Your task to perform on an android device: open app "Roku - Official Remote Control" (install if not already installed), go to login, and select forgot password Image 0: 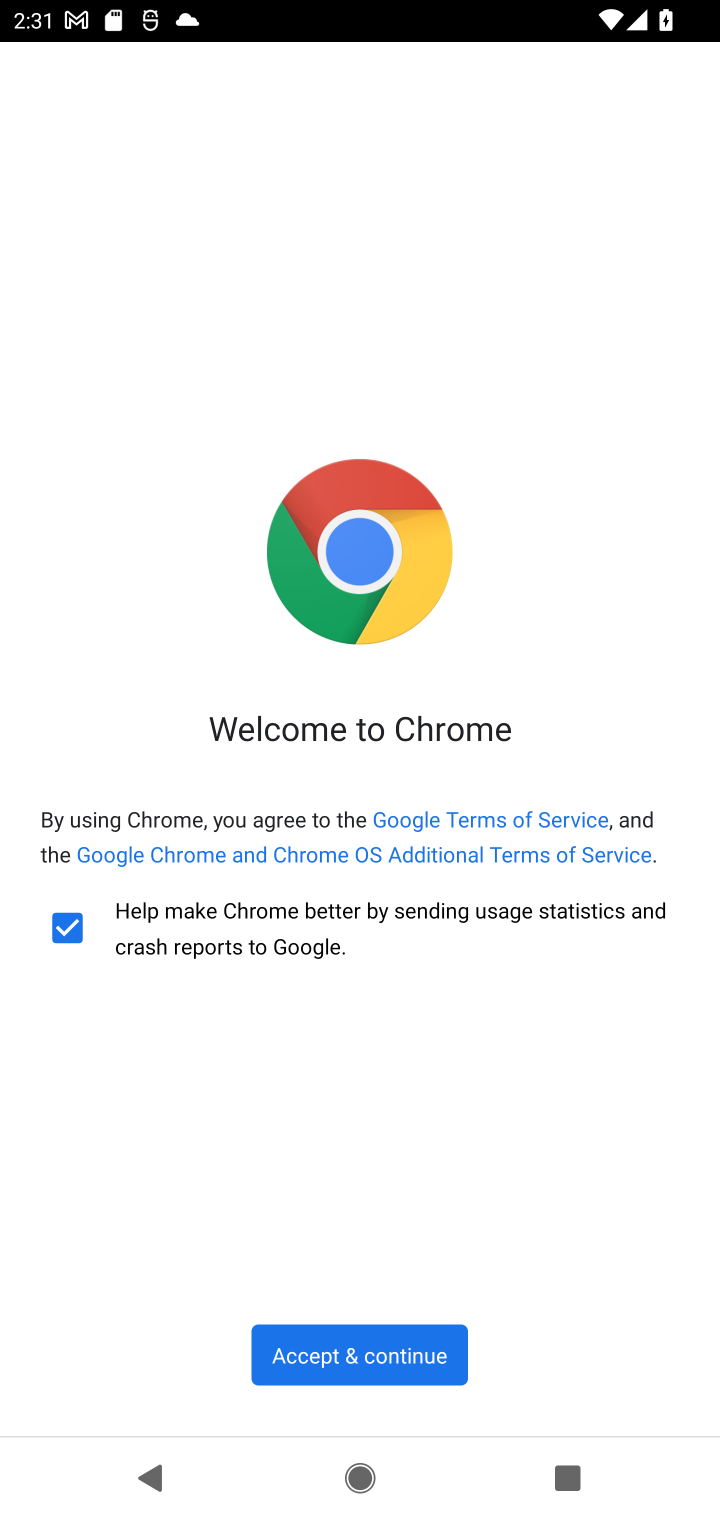
Step 0: press home button
Your task to perform on an android device: open app "Roku - Official Remote Control" (install if not already installed), go to login, and select forgot password Image 1: 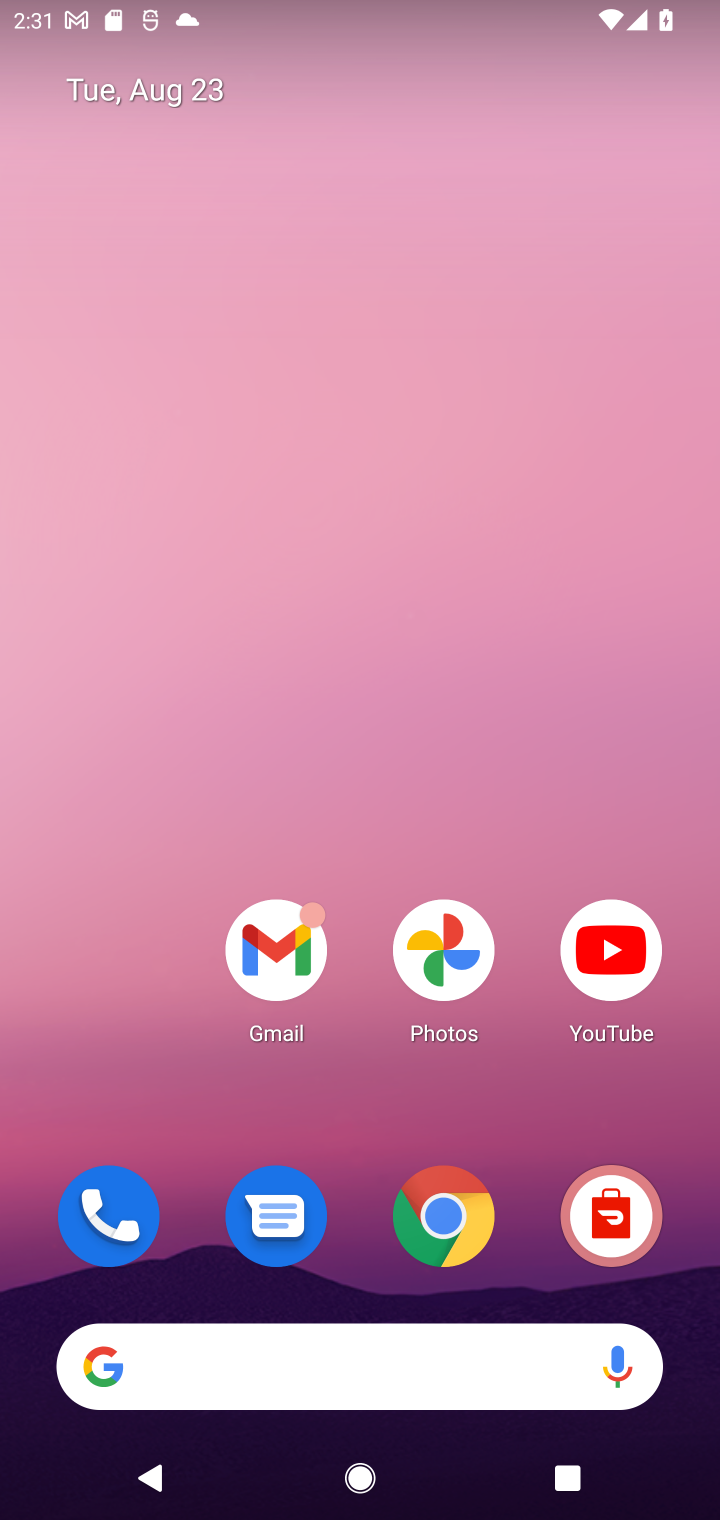
Step 1: drag from (371, 885) to (344, 3)
Your task to perform on an android device: open app "Roku - Official Remote Control" (install if not already installed), go to login, and select forgot password Image 2: 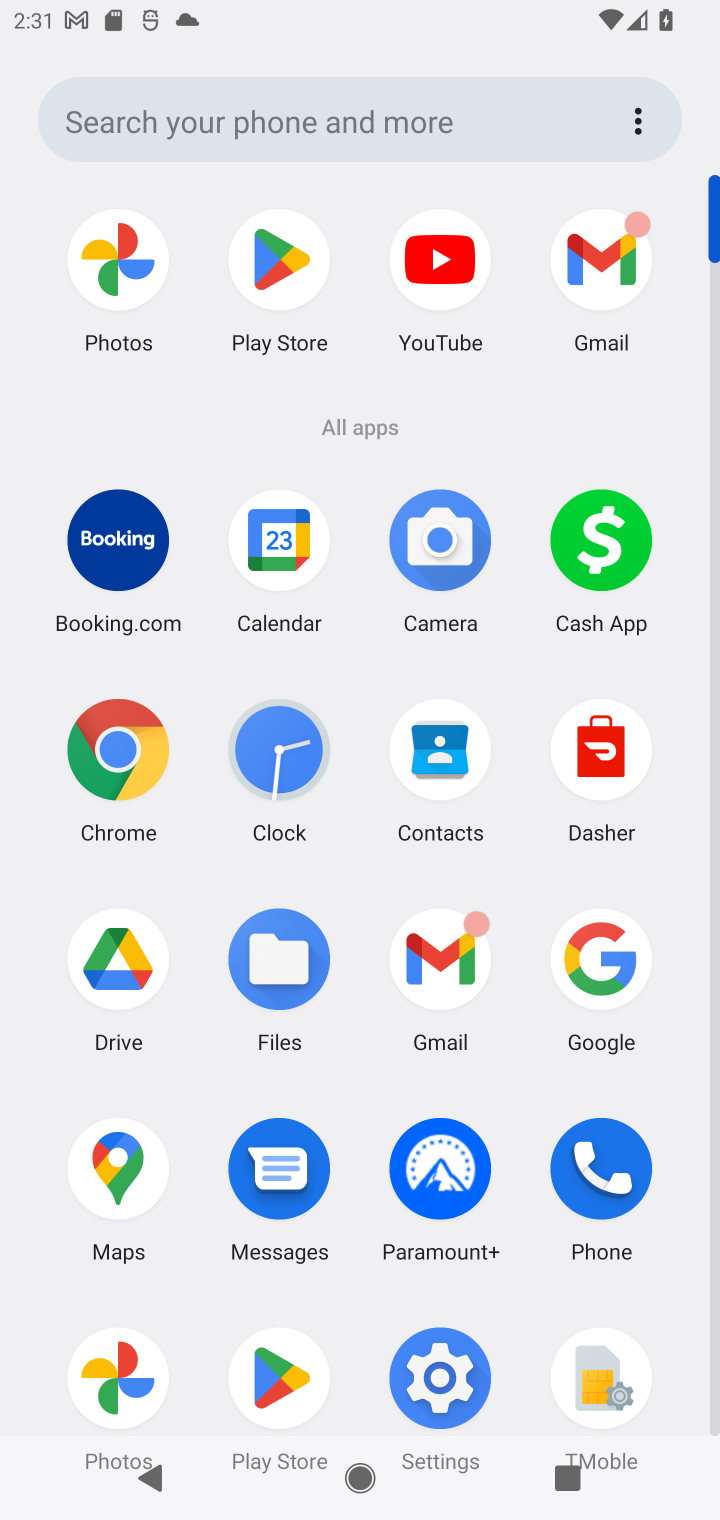
Step 2: click (275, 243)
Your task to perform on an android device: open app "Roku - Official Remote Control" (install if not already installed), go to login, and select forgot password Image 3: 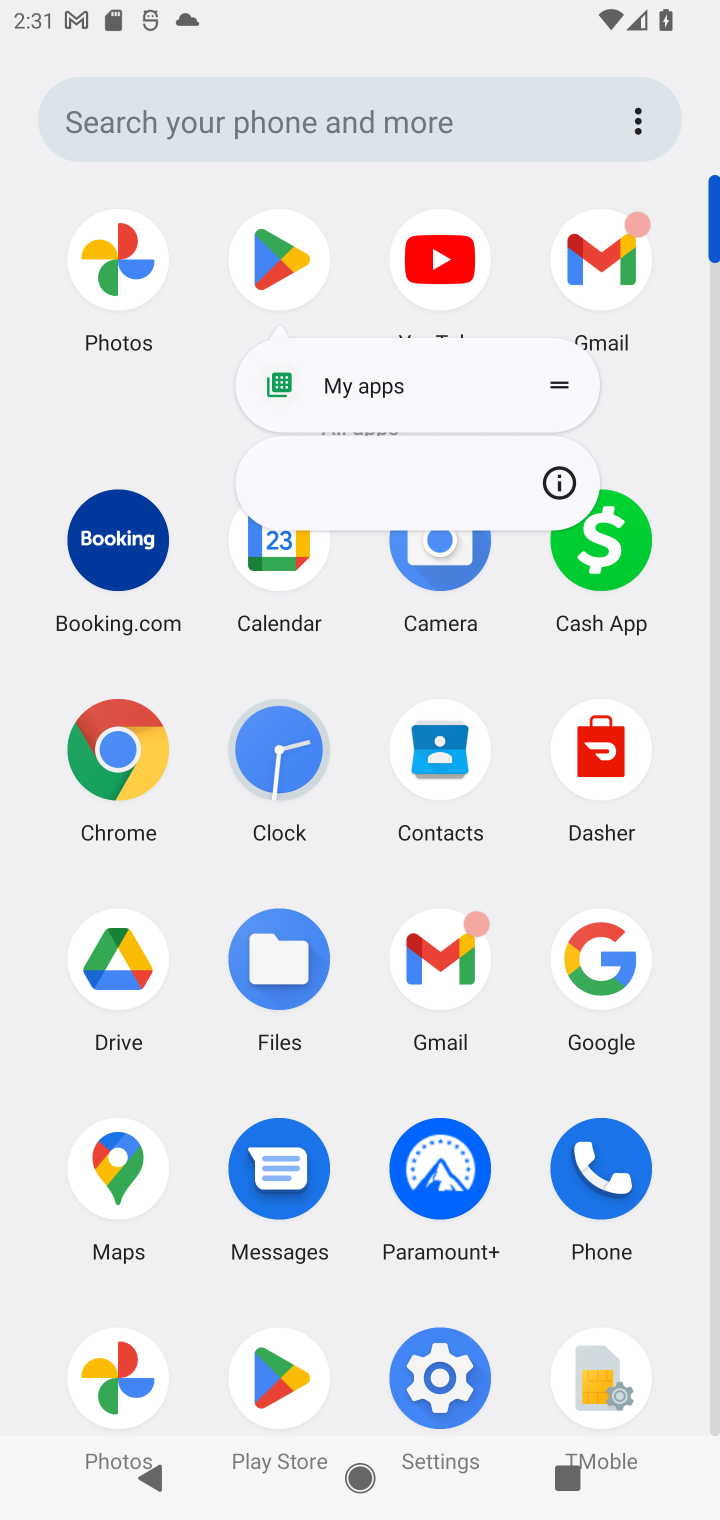
Step 3: click (275, 268)
Your task to perform on an android device: open app "Roku - Official Remote Control" (install if not already installed), go to login, and select forgot password Image 4: 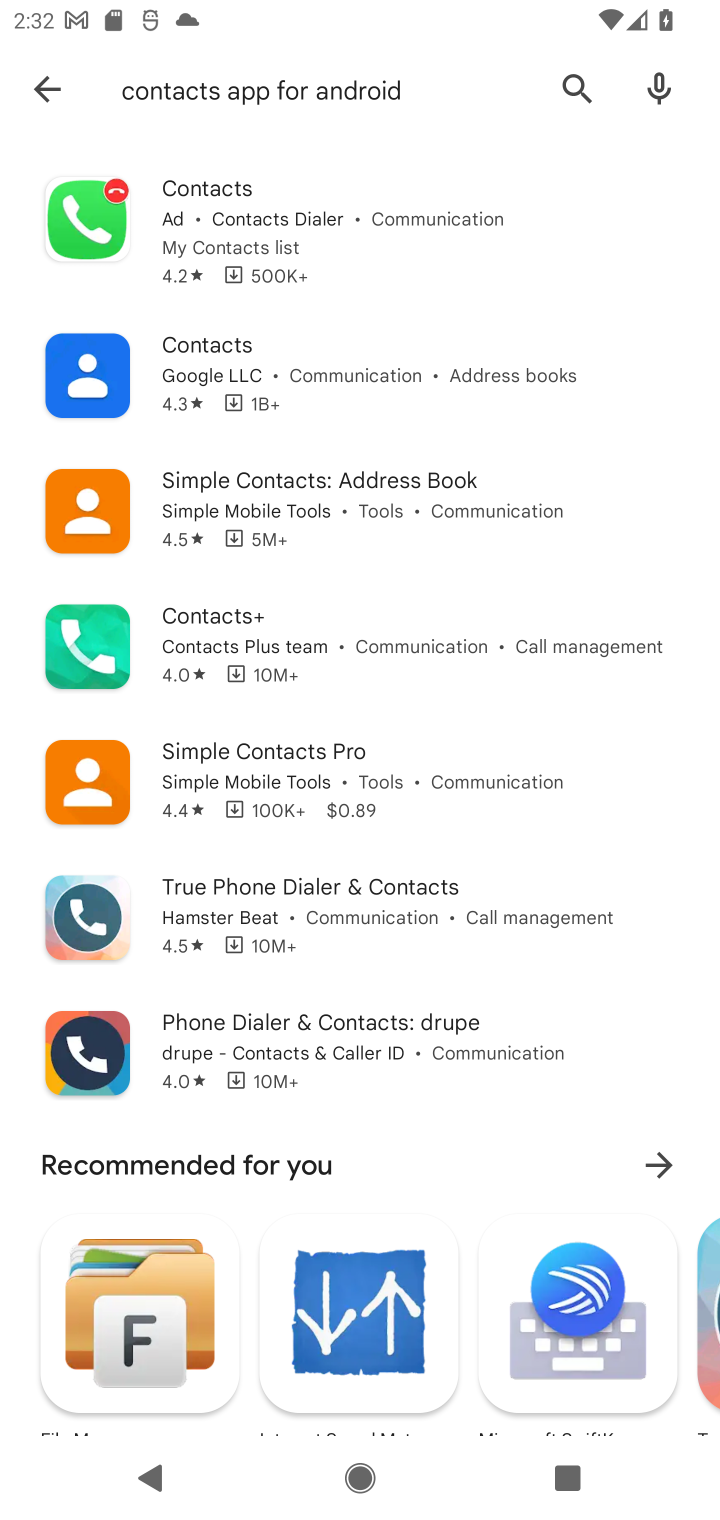
Step 4: click (38, 70)
Your task to perform on an android device: open app "Roku - Official Remote Control" (install if not already installed), go to login, and select forgot password Image 5: 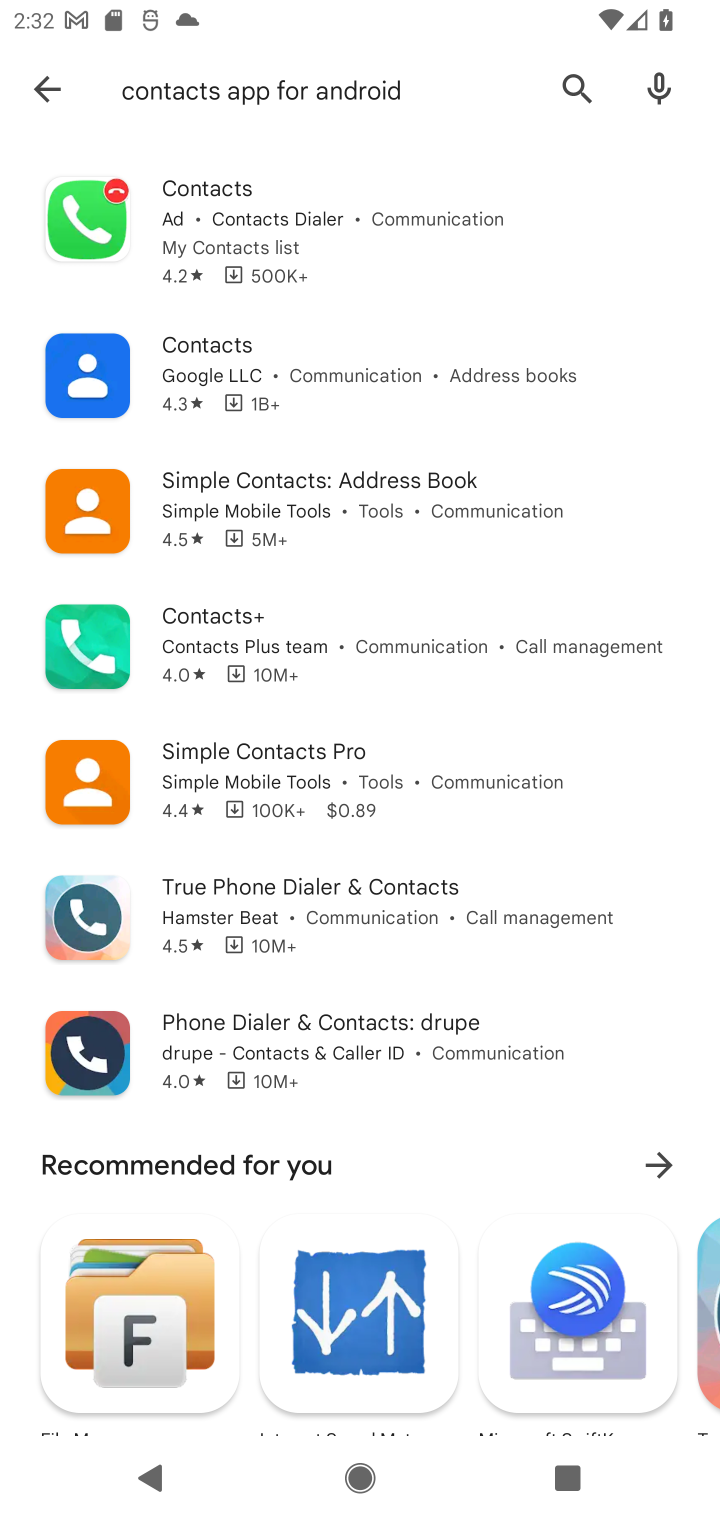
Step 5: click (25, 74)
Your task to perform on an android device: open app "Roku - Official Remote Control" (install if not already installed), go to login, and select forgot password Image 6: 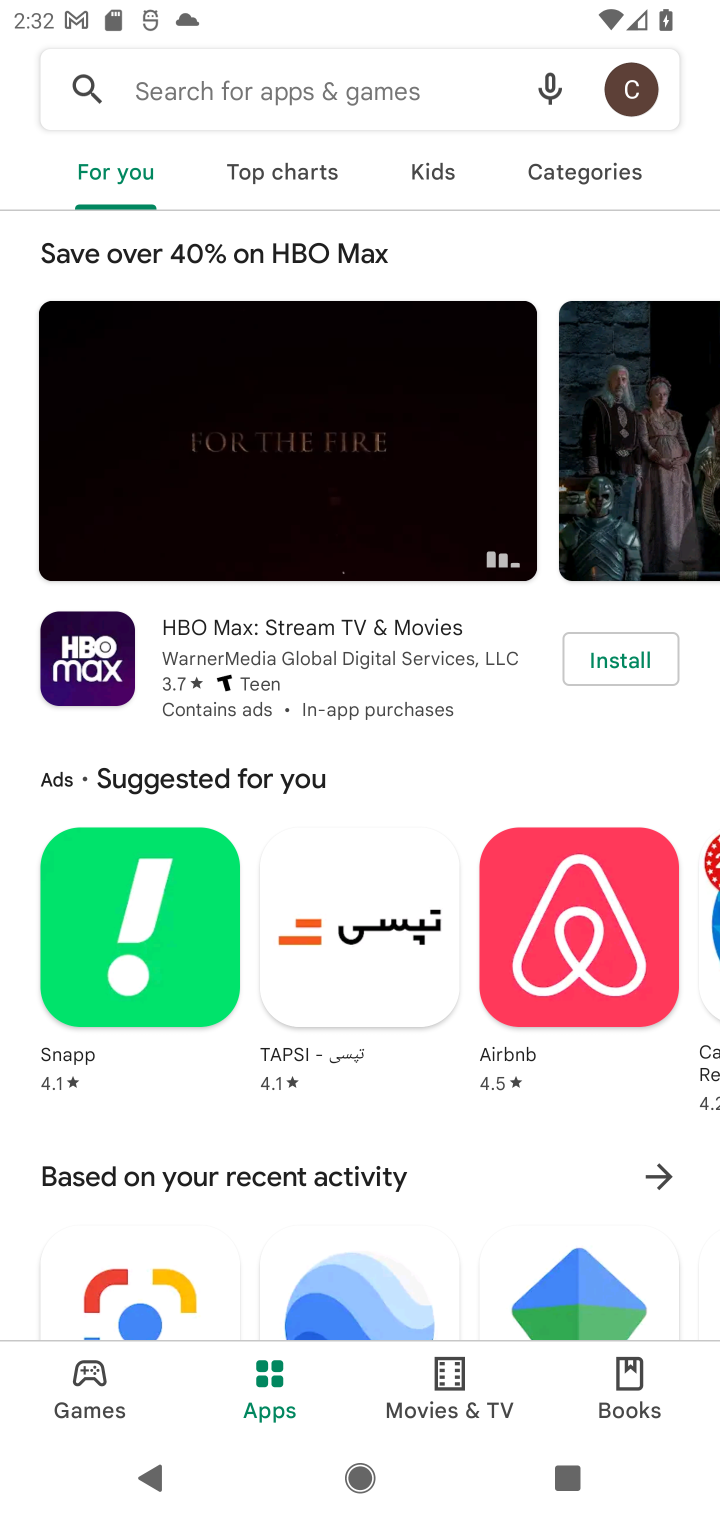
Step 6: click (373, 70)
Your task to perform on an android device: open app "Roku - Official Remote Control" (install if not already installed), go to login, and select forgot password Image 7: 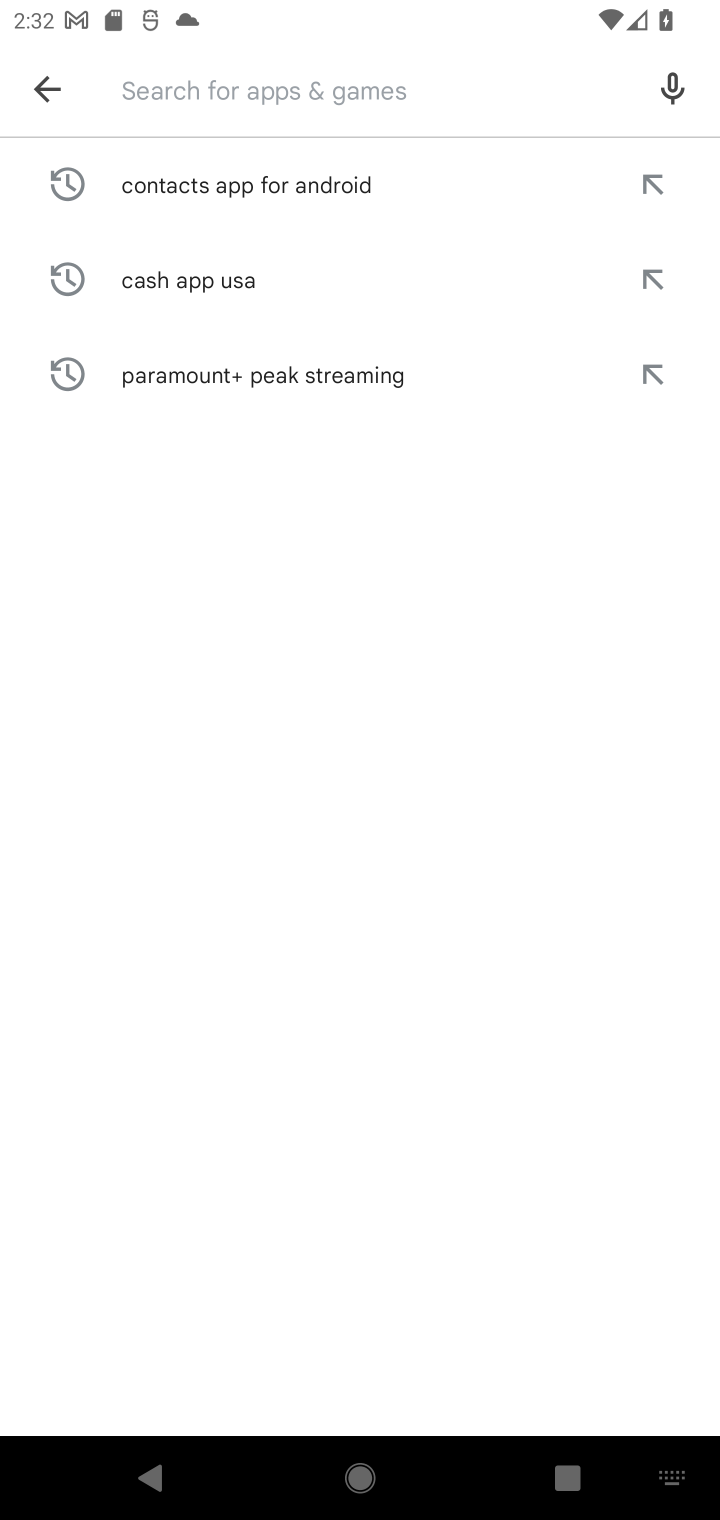
Step 7: type "Roku  "
Your task to perform on an android device: open app "Roku - Official Remote Control" (install if not already installed), go to login, and select forgot password Image 8: 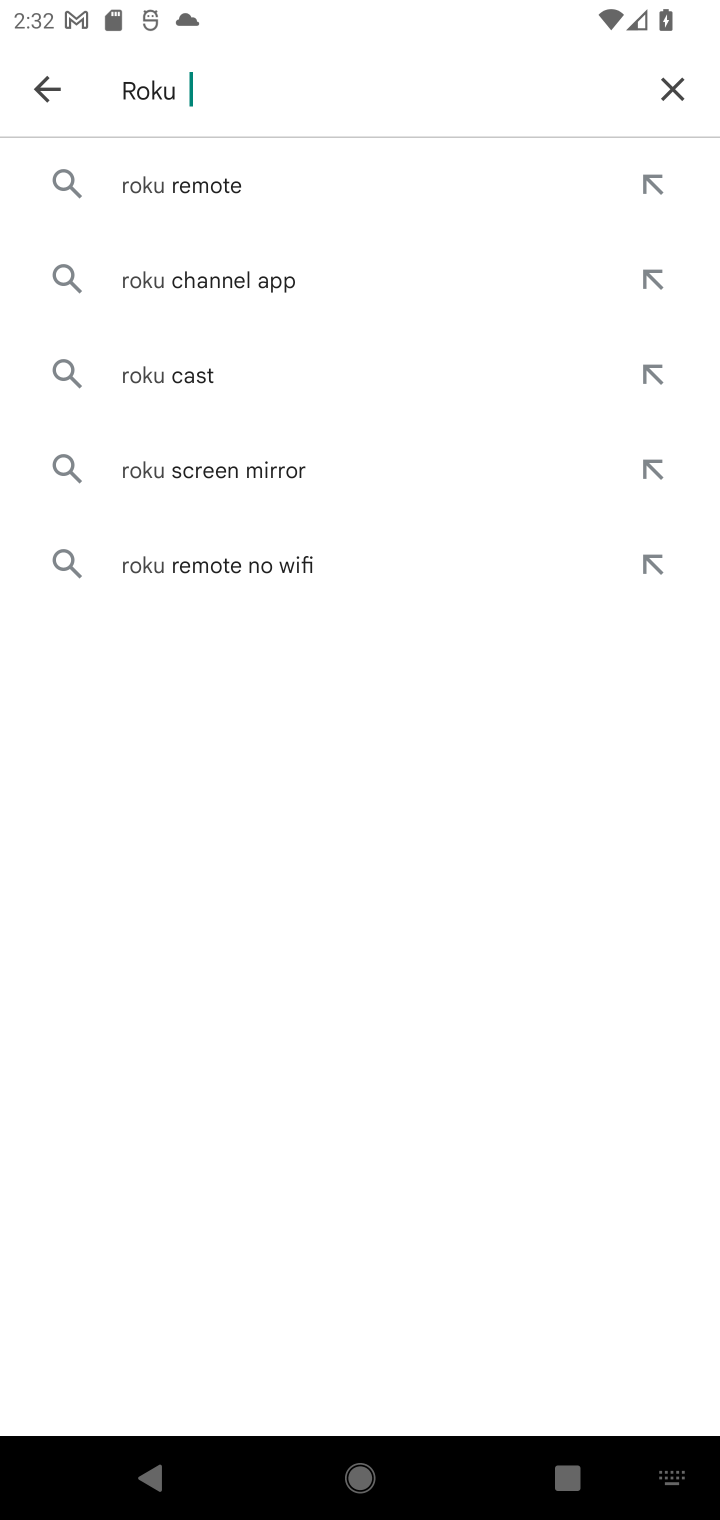
Step 8: click (226, 181)
Your task to perform on an android device: open app "Roku - Official Remote Control" (install if not already installed), go to login, and select forgot password Image 9: 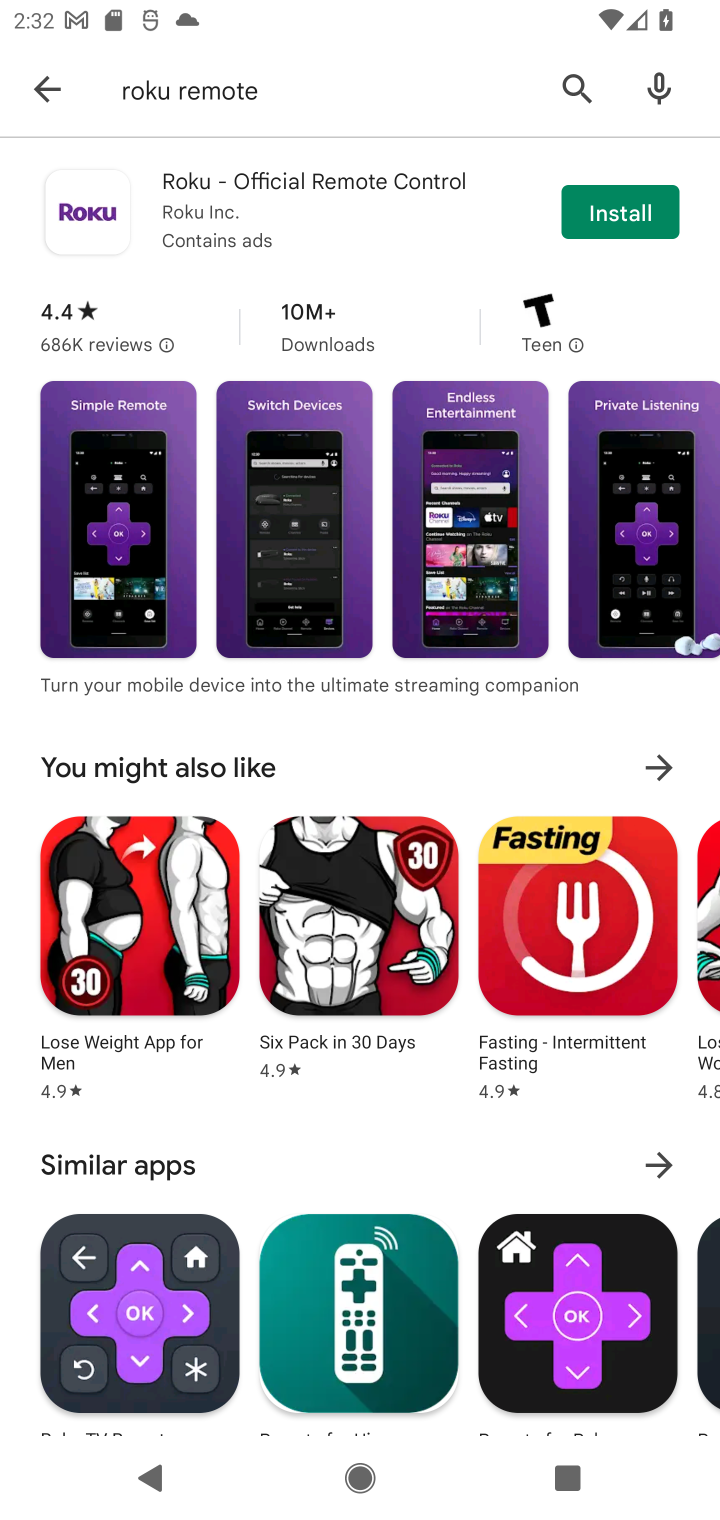
Step 9: click (597, 210)
Your task to perform on an android device: open app "Roku - Official Remote Control" (install if not already installed), go to login, and select forgot password Image 10: 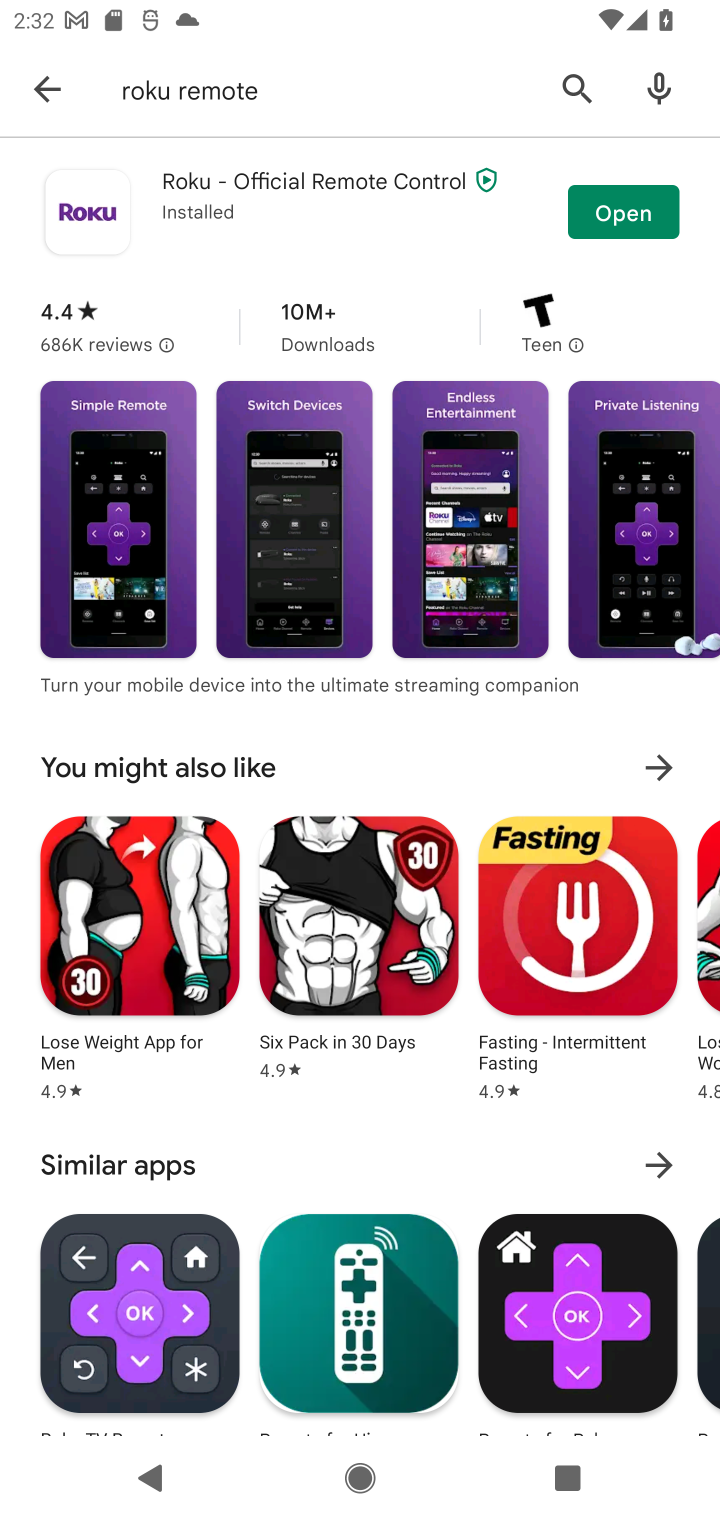
Step 10: click (615, 203)
Your task to perform on an android device: open app "Roku - Official Remote Control" (install if not already installed), go to login, and select forgot password Image 11: 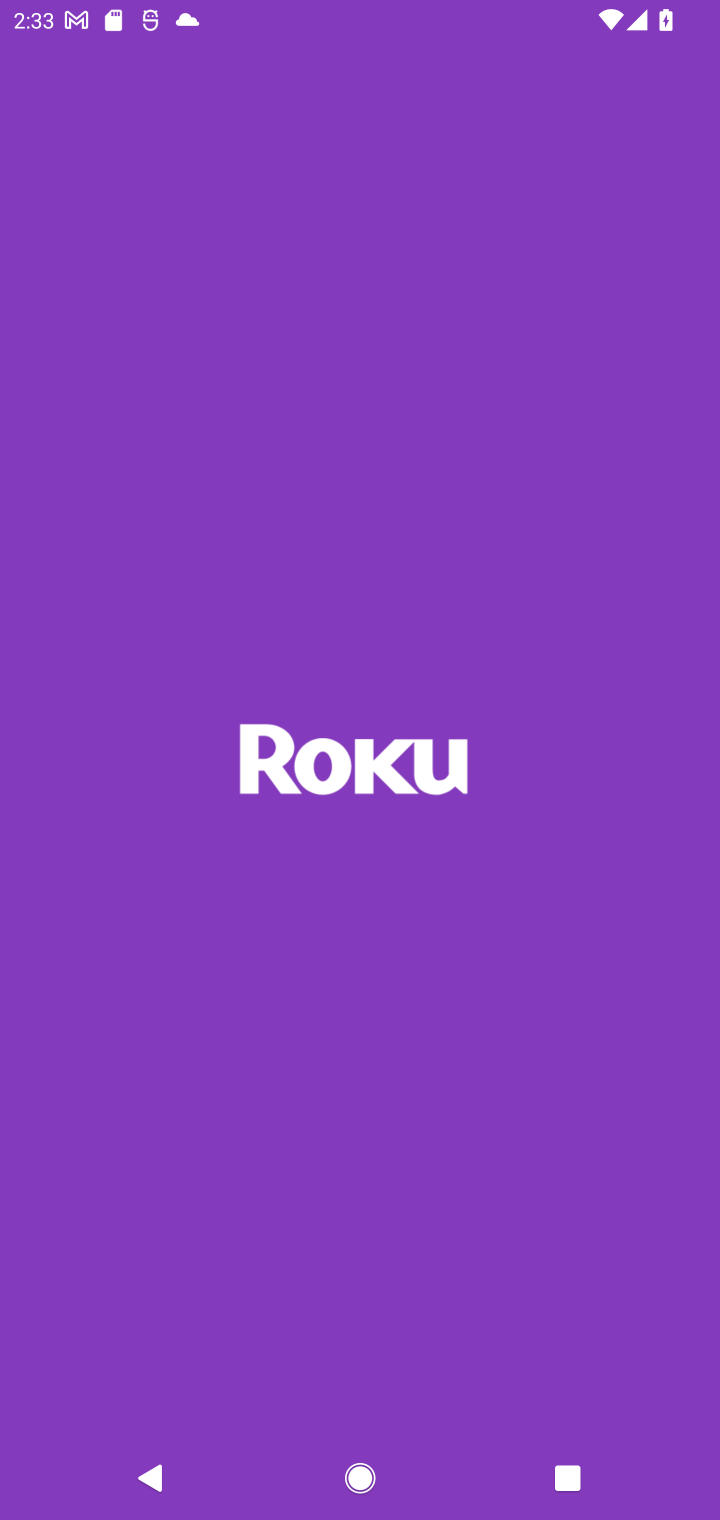
Step 11: task complete